Your task to perform on an android device: turn on priority inbox in the gmail app Image 0: 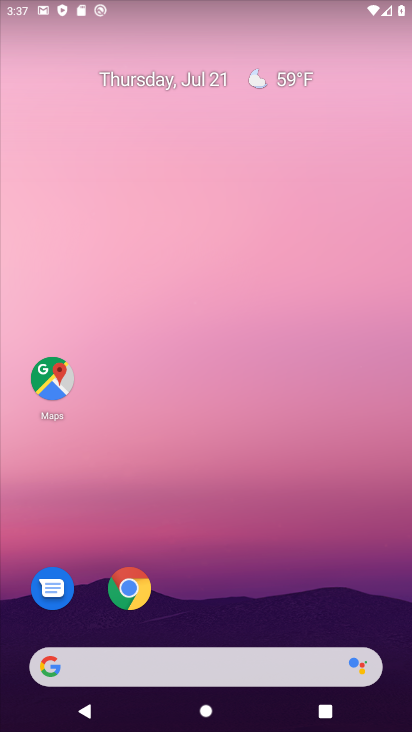
Step 0: drag from (207, 564) to (246, 203)
Your task to perform on an android device: turn on priority inbox in the gmail app Image 1: 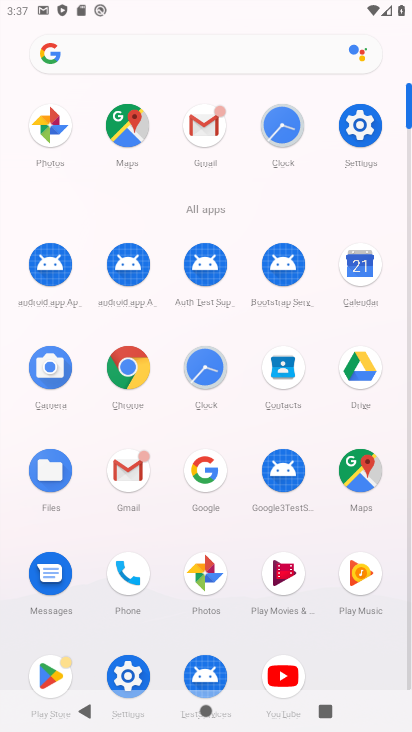
Step 1: click (130, 485)
Your task to perform on an android device: turn on priority inbox in the gmail app Image 2: 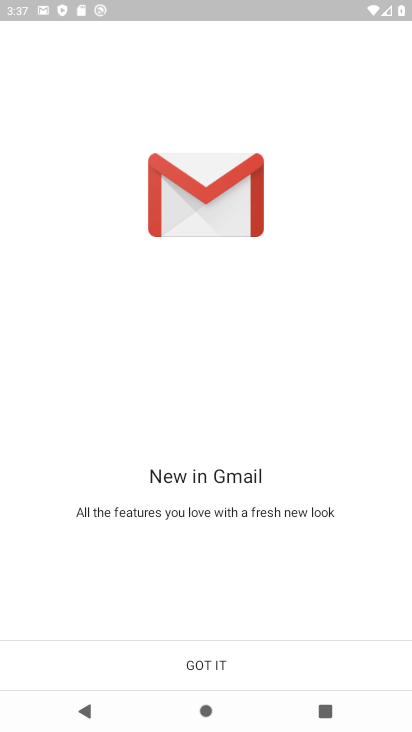
Step 2: click (197, 662)
Your task to perform on an android device: turn on priority inbox in the gmail app Image 3: 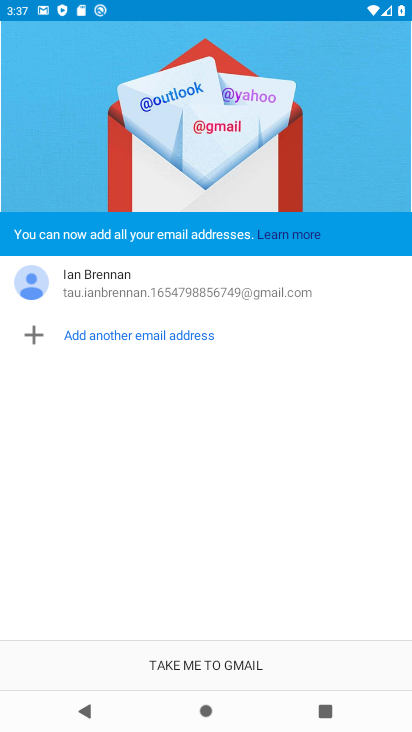
Step 3: click (197, 661)
Your task to perform on an android device: turn on priority inbox in the gmail app Image 4: 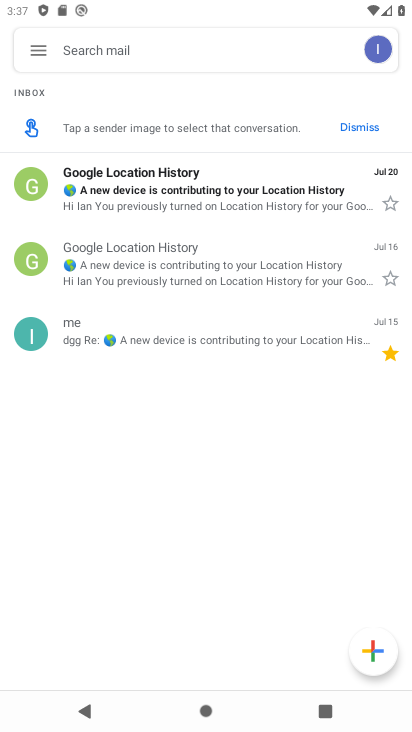
Step 4: click (38, 49)
Your task to perform on an android device: turn on priority inbox in the gmail app Image 5: 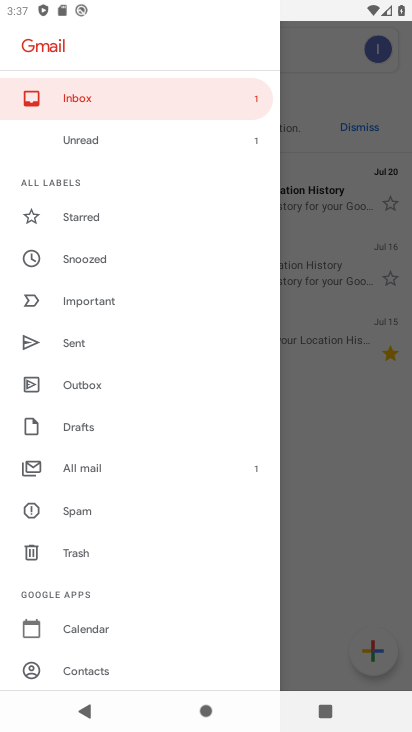
Step 5: drag from (99, 606) to (116, 196)
Your task to perform on an android device: turn on priority inbox in the gmail app Image 6: 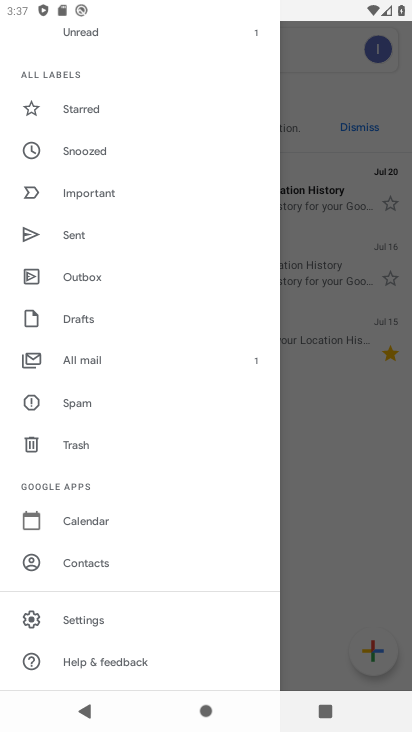
Step 6: click (82, 624)
Your task to perform on an android device: turn on priority inbox in the gmail app Image 7: 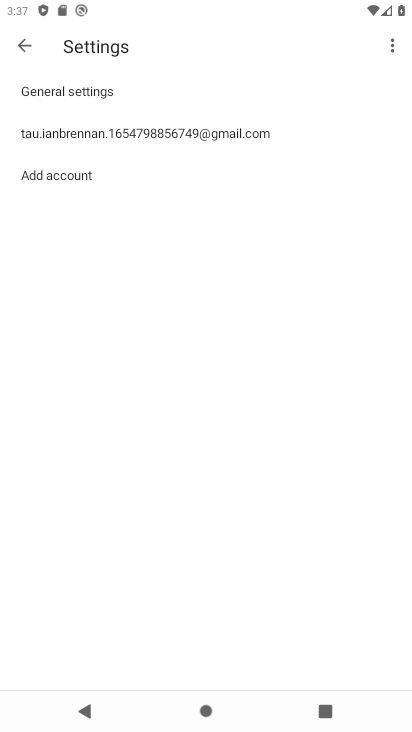
Step 7: click (101, 138)
Your task to perform on an android device: turn on priority inbox in the gmail app Image 8: 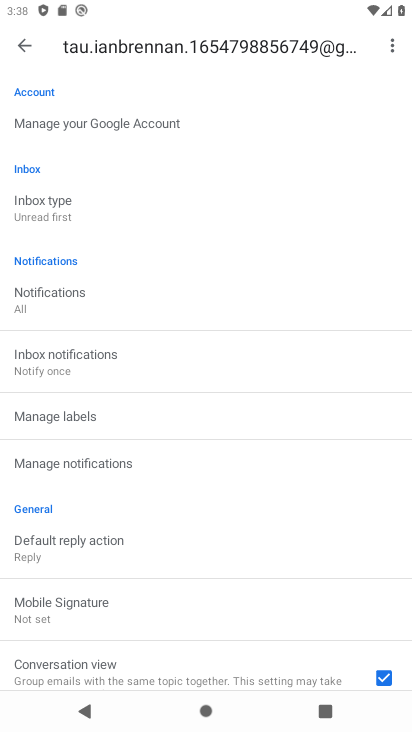
Step 8: click (66, 207)
Your task to perform on an android device: turn on priority inbox in the gmail app Image 9: 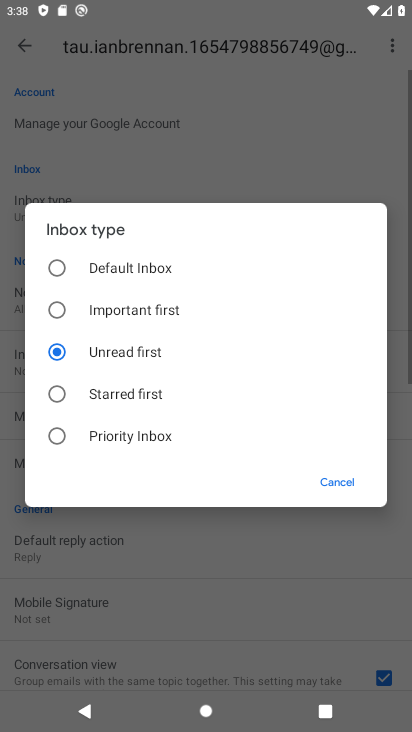
Step 9: click (106, 443)
Your task to perform on an android device: turn on priority inbox in the gmail app Image 10: 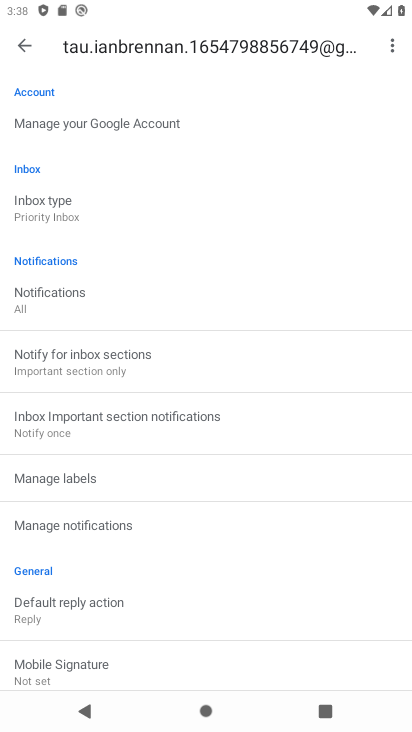
Step 10: task complete